Your task to perform on an android device: open a new tab in the chrome app Image 0: 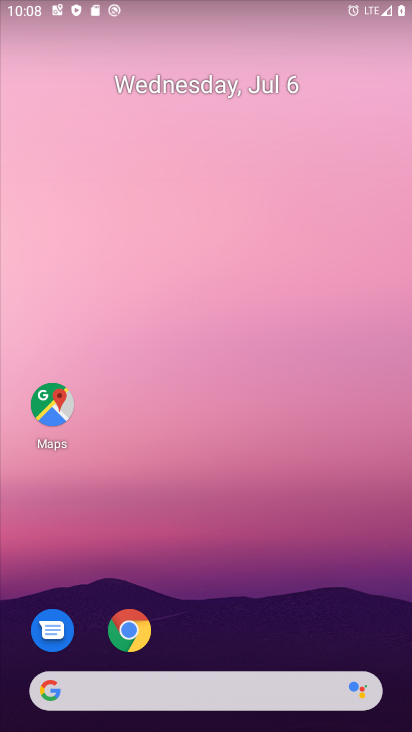
Step 0: click (131, 629)
Your task to perform on an android device: open a new tab in the chrome app Image 1: 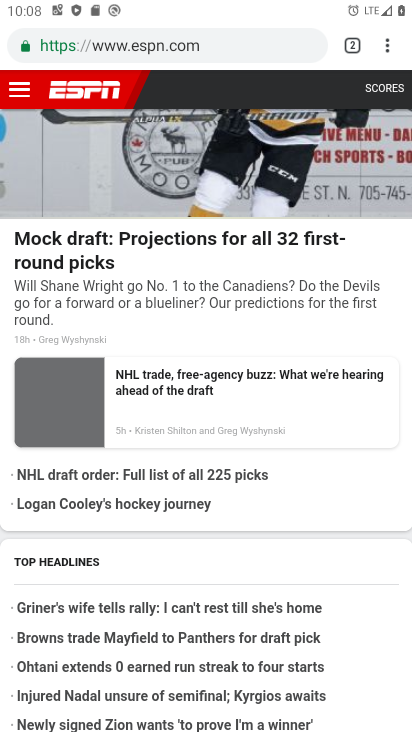
Step 1: click (389, 47)
Your task to perform on an android device: open a new tab in the chrome app Image 2: 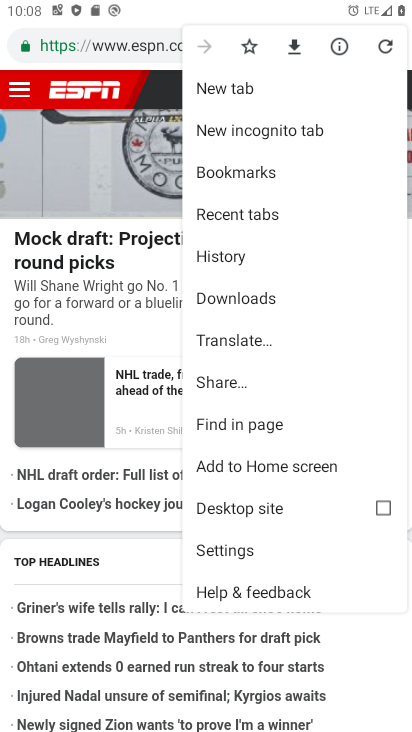
Step 2: click (211, 82)
Your task to perform on an android device: open a new tab in the chrome app Image 3: 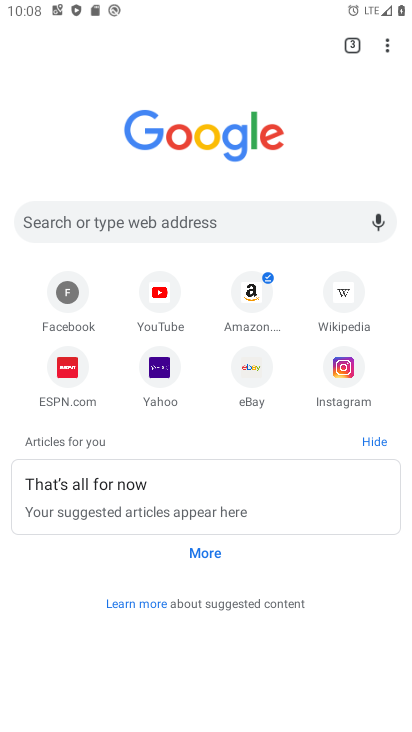
Step 3: task complete